Your task to perform on an android device: Go to notification settings Image 0: 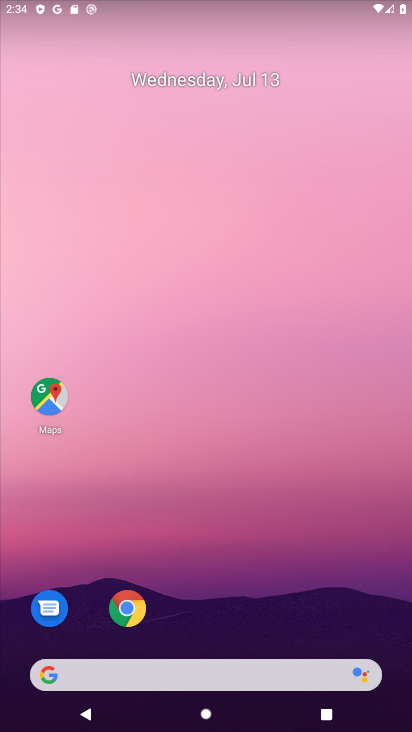
Step 0: drag from (160, 628) to (264, 131)
Your task to perform on an android device: Go to notification settings Image 1: 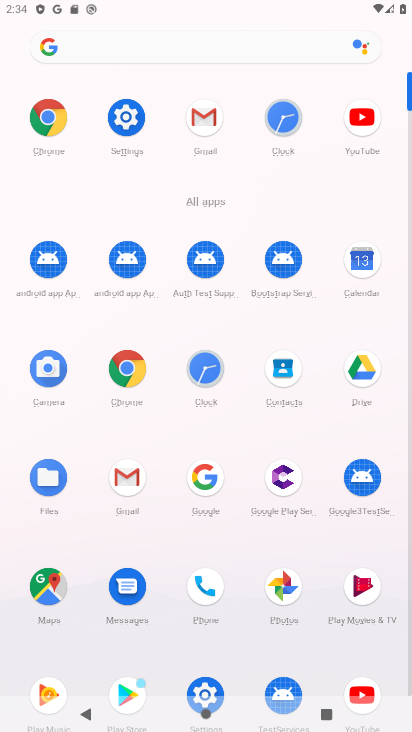
Step 1: click (130, 122)
Your task to perform on an android device: Go to notification settings Image 2: 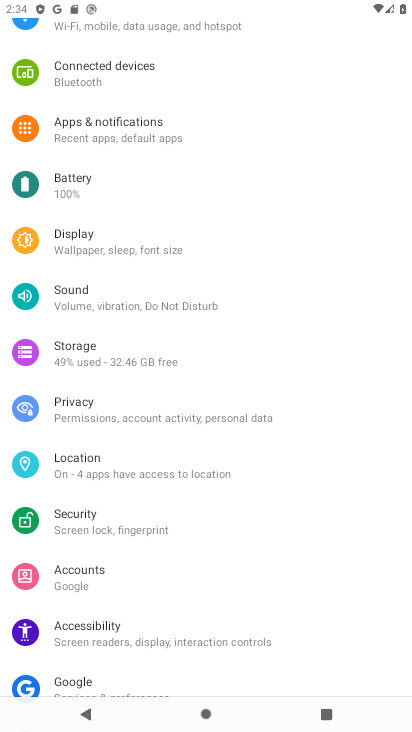
Step 2: click (126, 119)
Your task to perform on an android device: Go to notification settings Image 3: 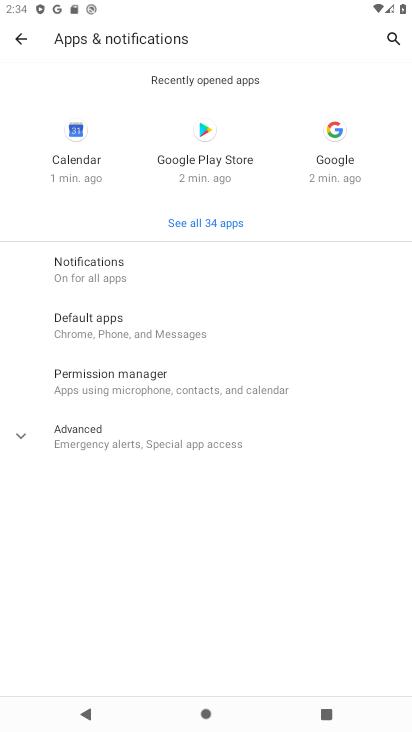
Step 3: task complete